Your task to perform on an android device: open a bookmark in the chrome app Image 0: 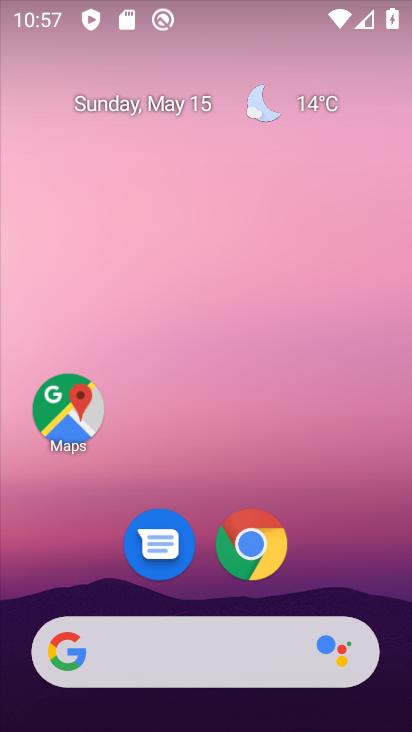
Step 0: click (274, 549)
Your task to perform on an android device: open a bookmark in the chrome app Image 1: 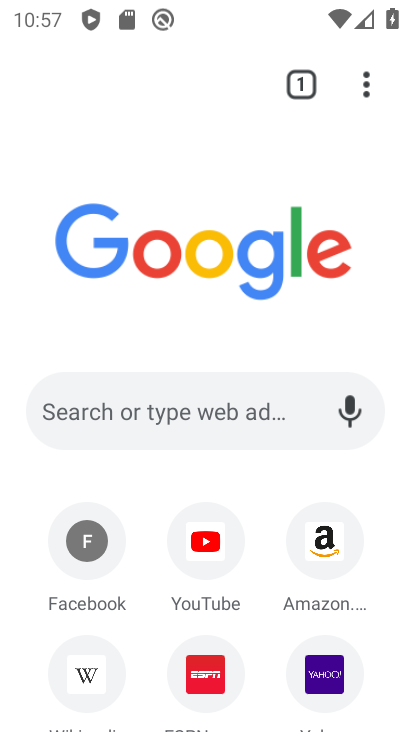
Step 1: task complete